Your task to perform on an android device: Open Google Maps Image 0: 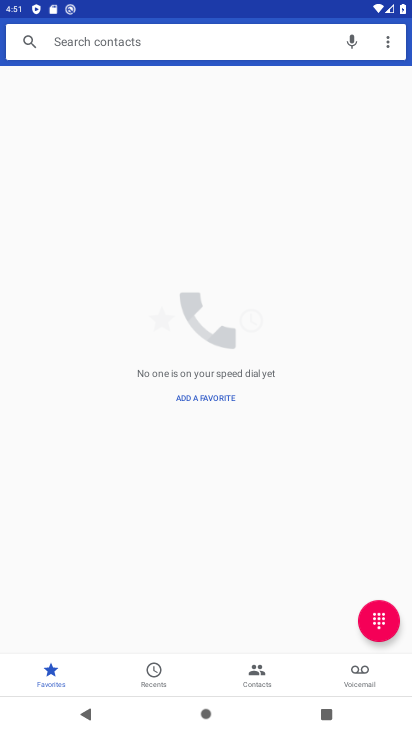
Step 0: press home button
Your task to perform on an android device: Open Google Maps Image 1: 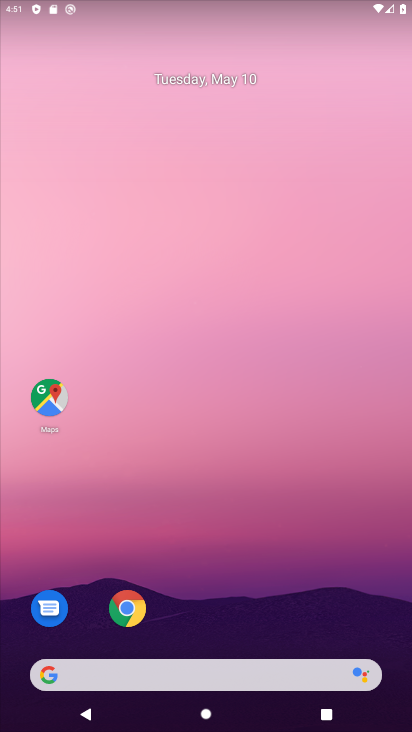
Step 1: click (48, 412)
Your task to perform on an android device: Open Google Maps Image 2: 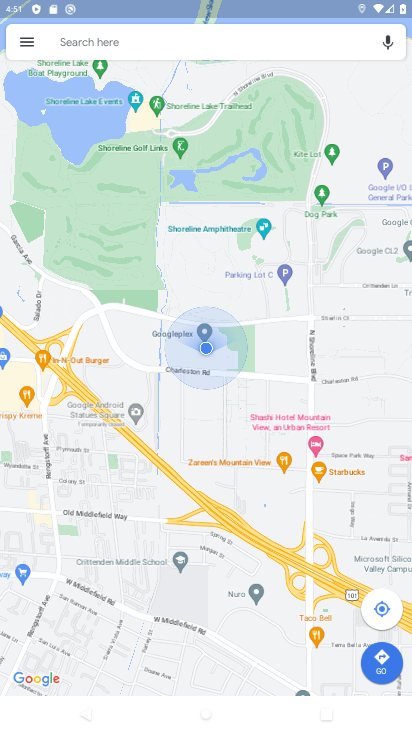
Step 2: task complete